Your task to perform on an android device: Open Yahoo.com Image 0: 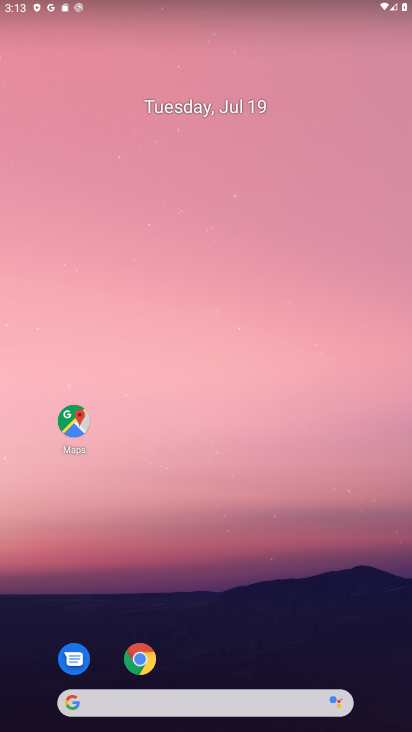
Step 0: click (154, 659)
Your task to perform on an android device: Open Yahoo.com Image 1: 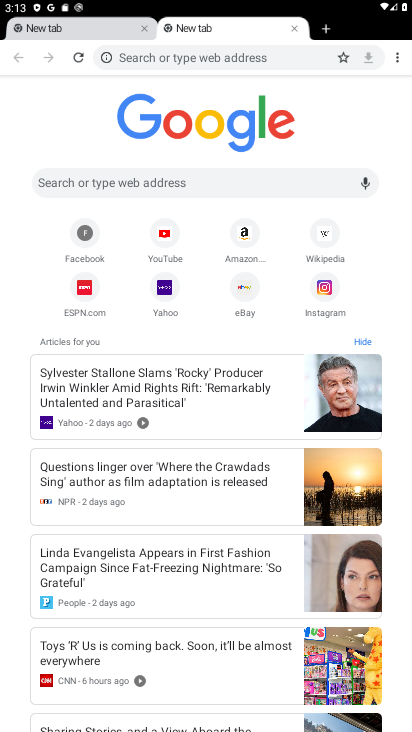
Step 1: click (169, 293)
Your task to perform on an android device: Open Yahoo.com Image 2: 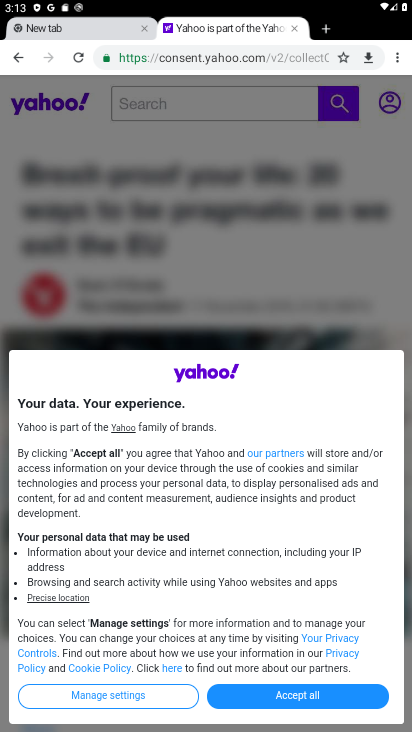
Step 2: click (299, 689)
Your task to perform on an android device: Open Yahoo.com Image 3: 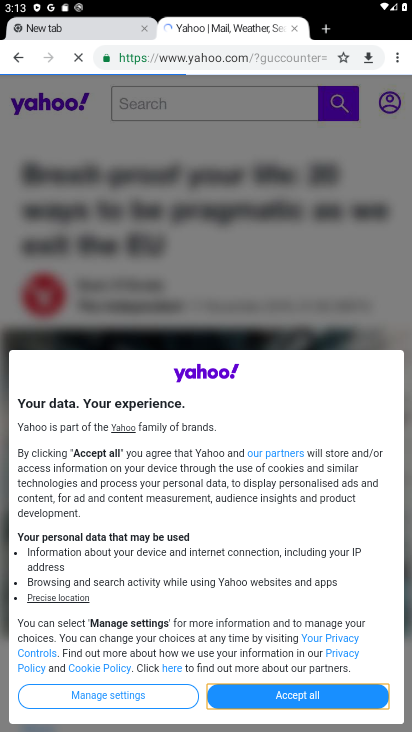
Step 3: click (297, 689)
Your task to perform on an android device: Open Yahoo.com Image 4: 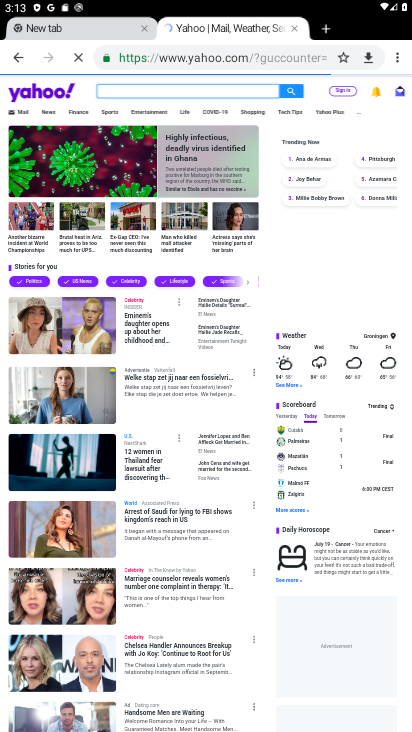
Step 4: task complete